Your task to perform on an android device: Open Wikipedia Image 0: 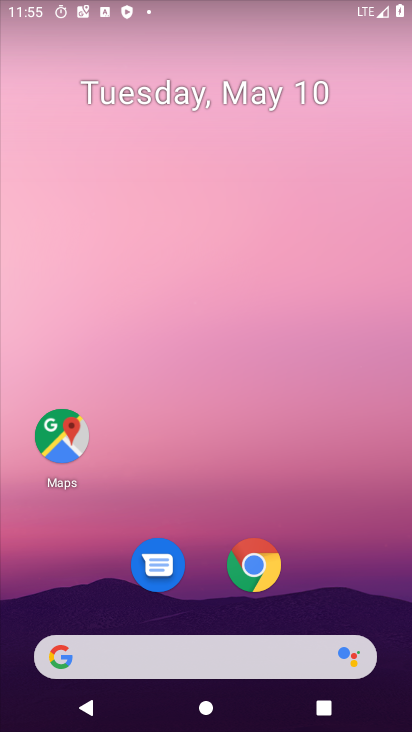
Step 0: click (253, 573)
Your task to perform on an android device: Open Wikipedia Image 1: 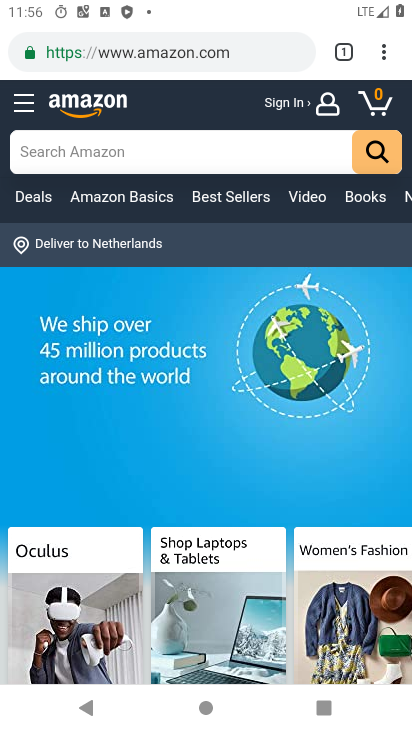
Step 1: click (356, 53)
Your task to perform on an android device: Open Wikipedia Image 2: 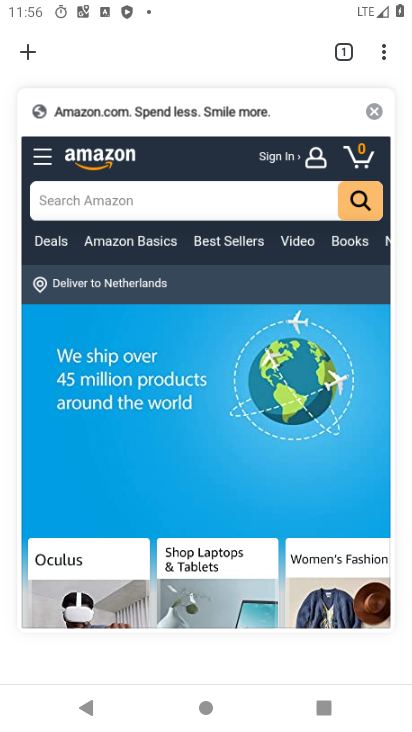
Step 2: click (21, 50)
Your task to perform on an android device: Open Wikipedia Image 3: 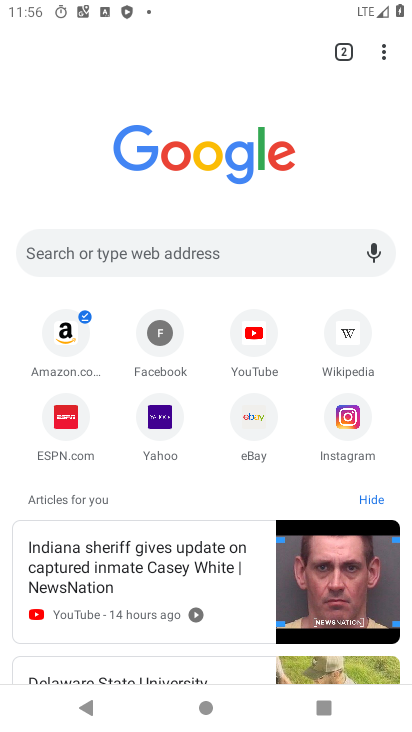
Step 3: click (349, 345)
Your task to perform on an android device: Open Wikipedia Image 4: 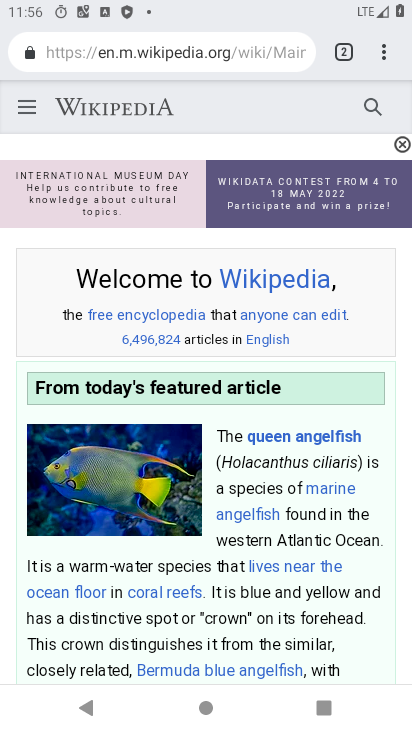
Step 4: task complete